Your task to perform on an android device: Open the calendar app, open the side menu, and click the "Day" option Image 0: 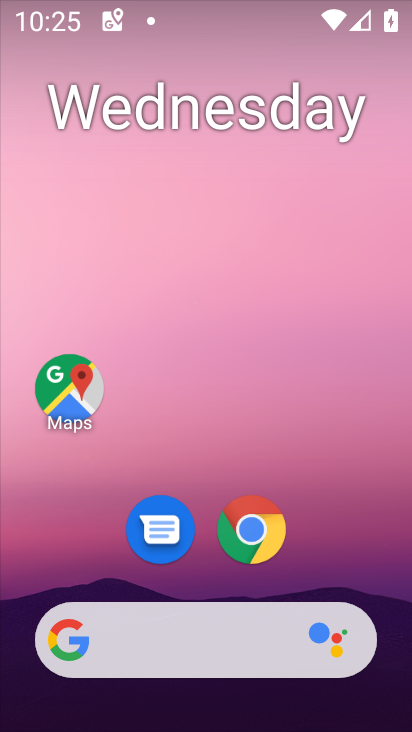
Step 0: drag from (397, 643) to (354, 86)
Your task to perform on an android device: Open the calendar app, open the side menu, and click the "Day" option Image 1: 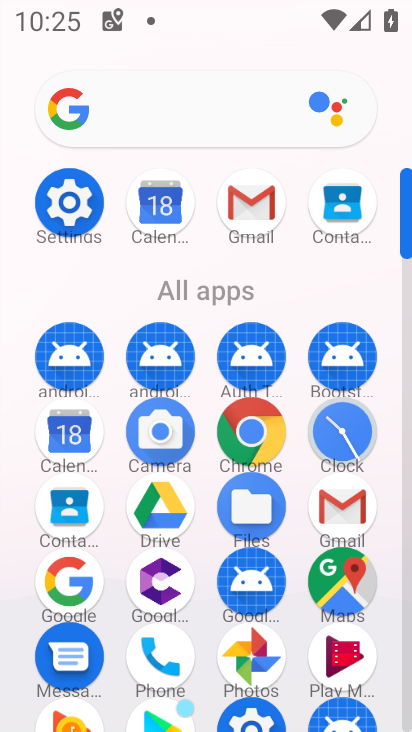
Step 1: click (407, 700)
Your task to perform on an android device: Open the calendar app, open the side menu, and click the "Day" option Image 2: 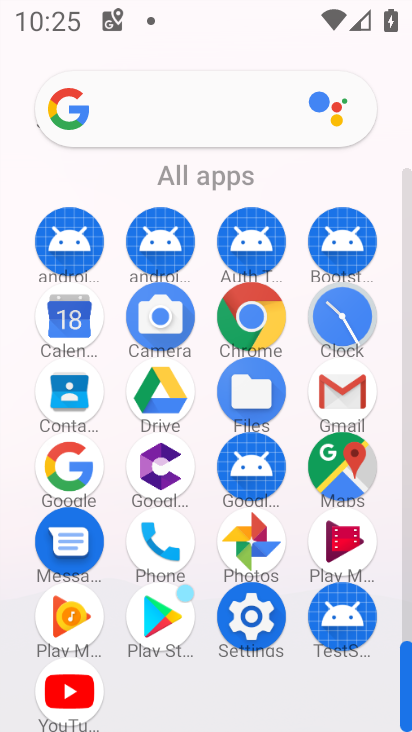
Step 2: click (65, 314)
Your task to perform on an android device: Open the calendar app, open the side menu, and click the "Day" option Image 3: 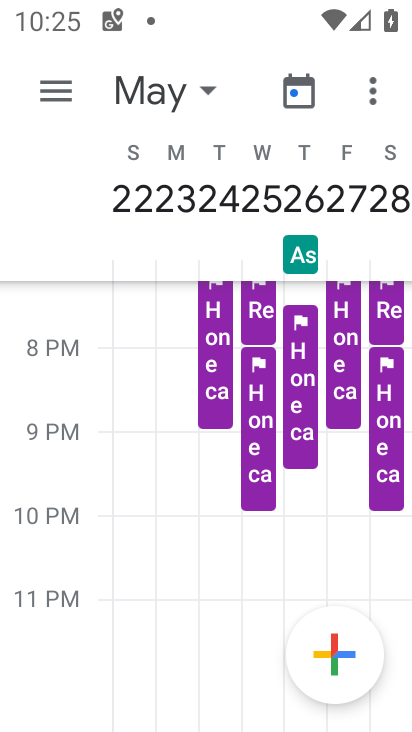
Step 3: click (51, 91)
Your task to perform on an android device: Open the calendar app, open the side menu, and click the "Day" option Image 4: 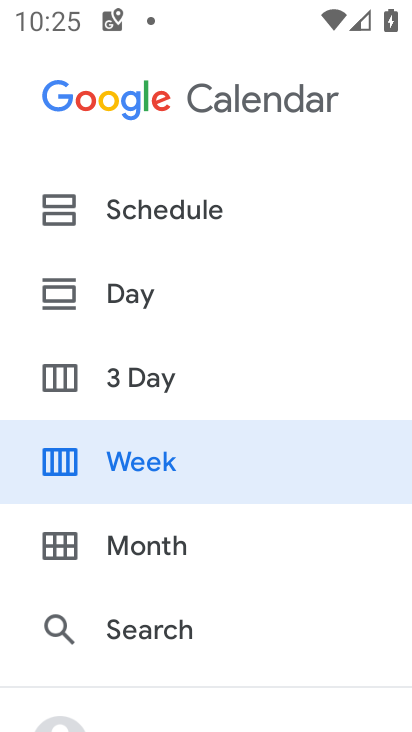
Step 4: click (129, 285)
Your task to perform on an android device: Open the calendar app, open the side menu, and click the "Day" option Image 5: 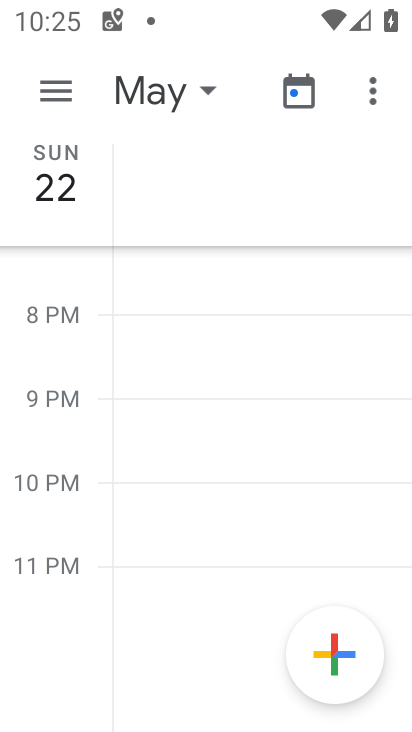
Step 5: task complete